Your task to perform on an android device: Open calendar and show me the fourth week of next month Image 0: 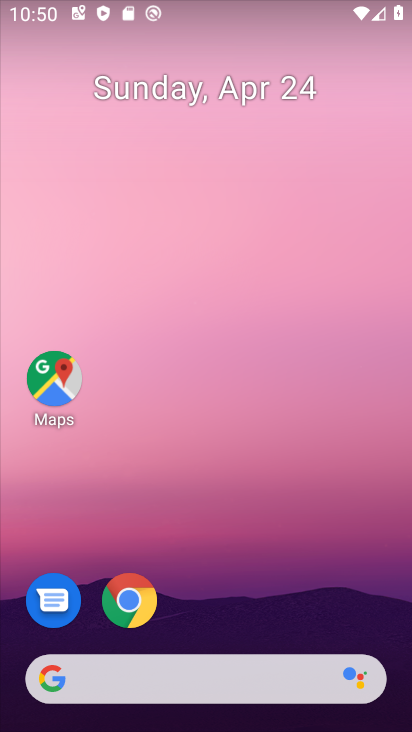
Step 0: click (159, 97)
Your task to perform on an android device: Open calendar and show me the fourth week of next month Image 1: 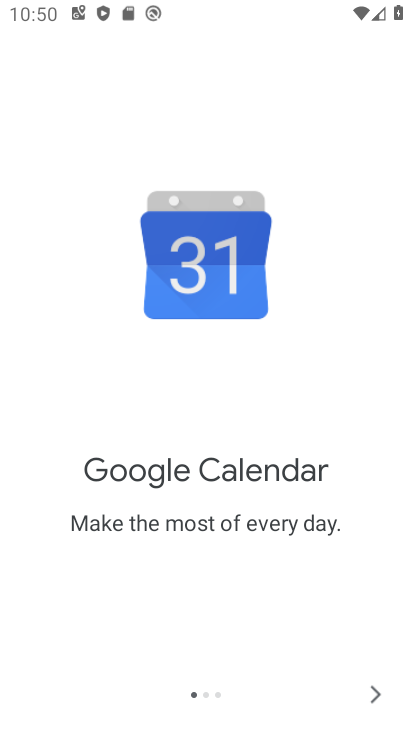
Step 1: click (365, 693)
Your task to perform on an android device: Open calendar and show me the fourth week of next month Image 2: 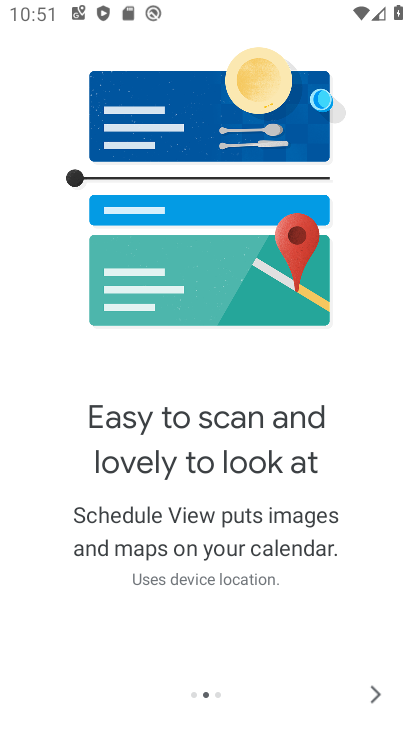
Step 2: click (371, 702)
Your task to perform on an android device: Open calendar and show me the fourth week of next month Image 3: 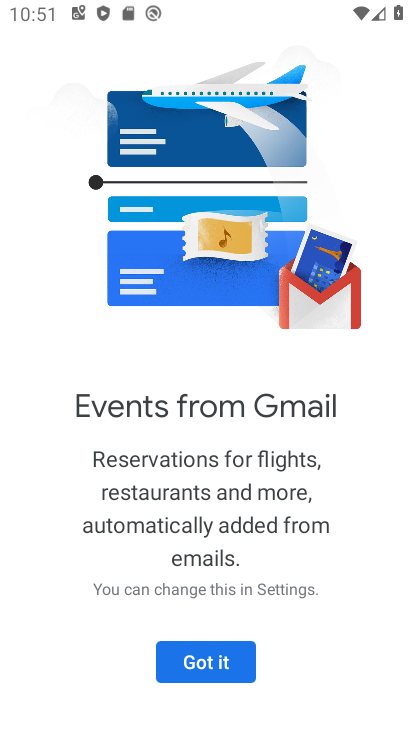
Step 3: click (209, 650)
Your task to perform on an android device: Open calendar and show me the fourth week of next month Image 4: 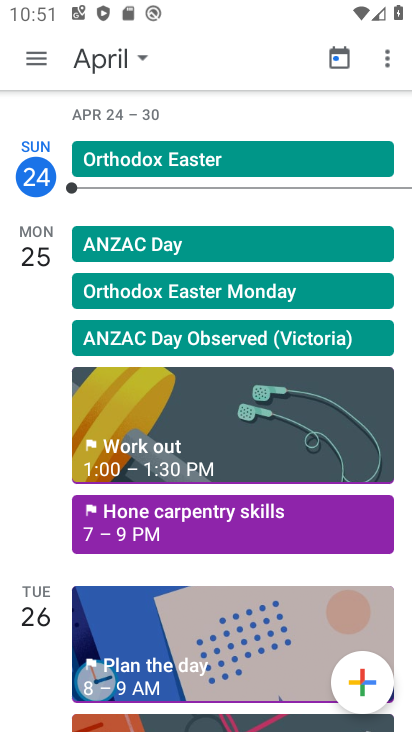
Step 4: click (136, 55)
Your task to perform on an android device: Open calendar and show me the fourth week of next month Image 5: 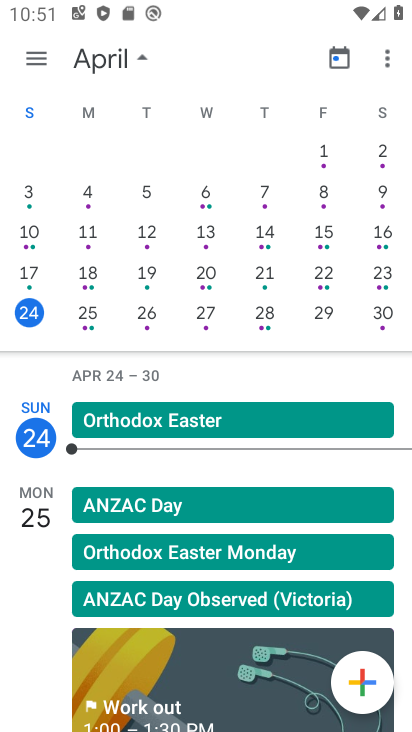
Step 5: drag from (377, 246) to (30, 232)
Your task to perform on an android device: Open calendar and show me the fourth week of next month Image 6: 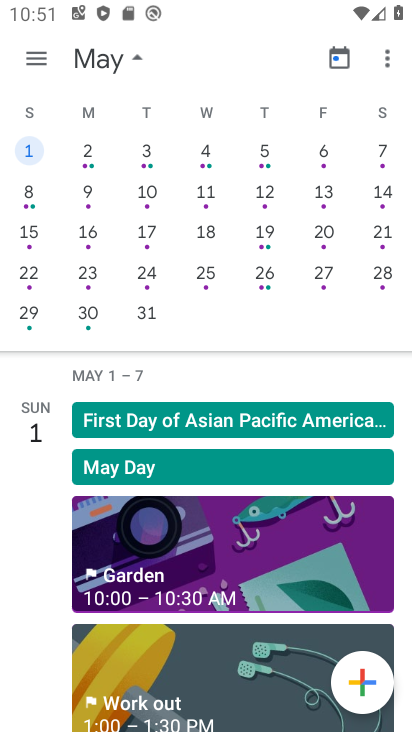
Step 6: click (151, 281)
Your task to perform on an android device: Open calendar and show me the fourth week of next month Image 7: 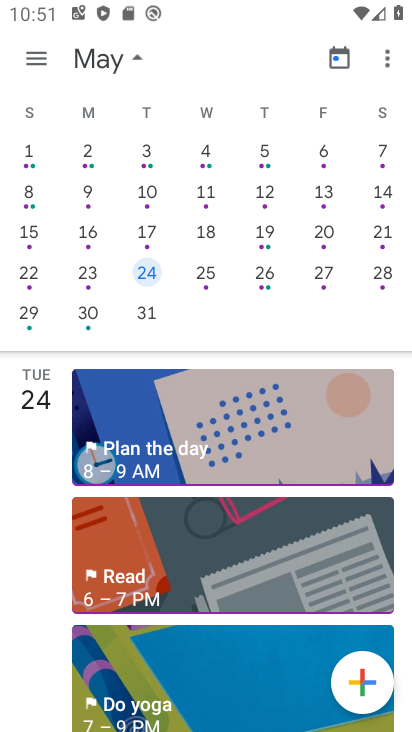
Step 7: task complete